Your task to perform on an android device: Show me the alarms in the clock app Image 0: 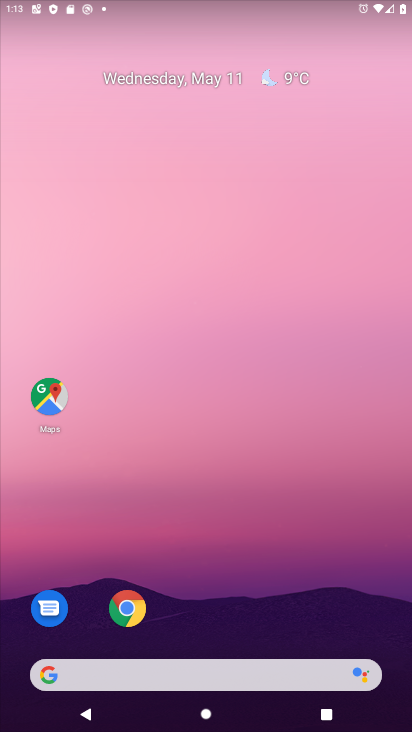
Step 0: drag from (159, 715) to (127, 333)
Your task to perform on an android device: Show me the alarms in the clock app Image 1: 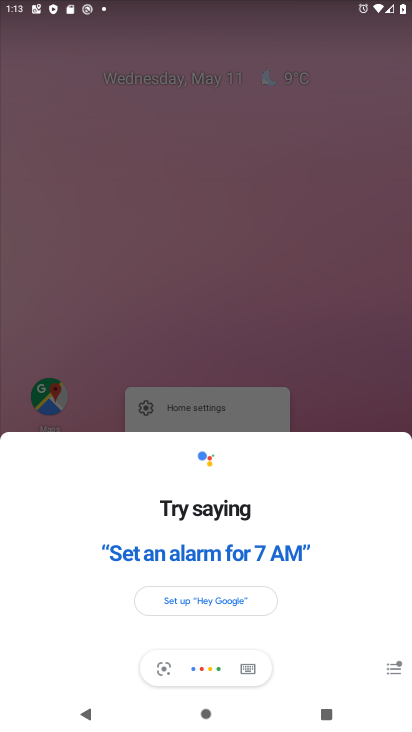
Step 1: click (175, 277)
Your task to perform on an android device: Show me the alarms in the clock app Image 2: 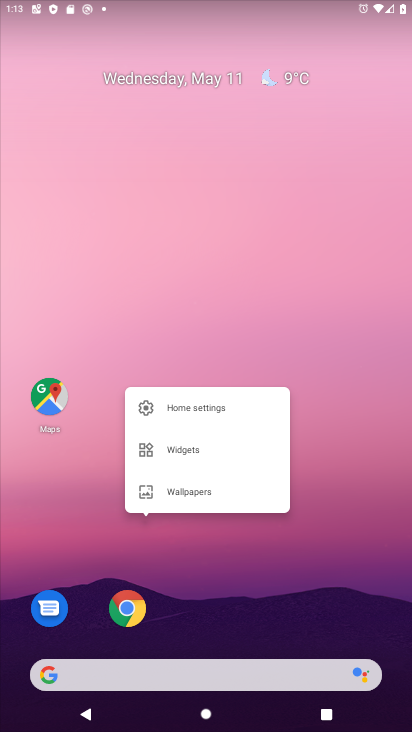
Step 2: click (175, 277)
Your task to perform on an android device: Show me the alarms in the clock app Image 3: 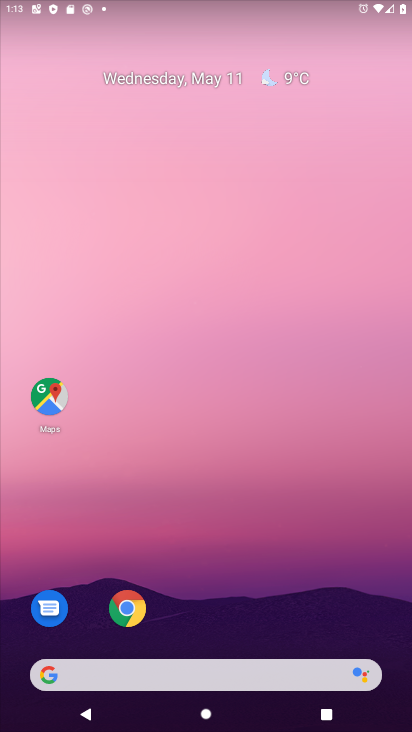
Step 3: click (175, 277)
Your task to perform on an android device: Show me the alarms in the clock app Image 4: 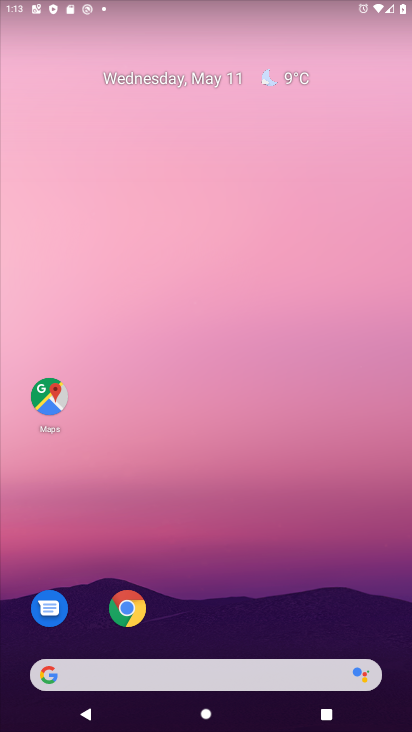
Step 4: drag from (232, 582) to (156, 130)
Your task to perform on an android device: Show me the alarms in the clock app Image 5: 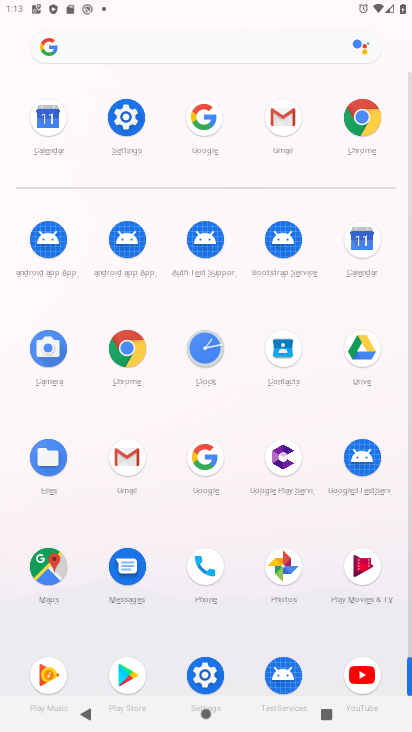
Step 5: click (209, 359)
Your task to perform on an android device: Show me the alarms in the clock app Image 6: 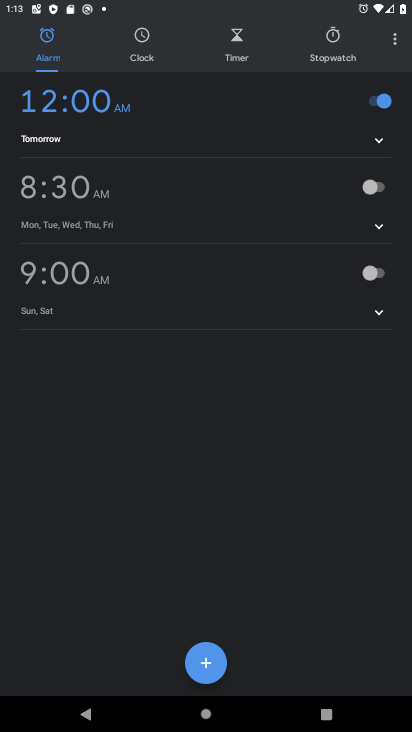
Step 6: task complete